Your task to perform on an android device: What's on my calendar tomorrow? Image 0: 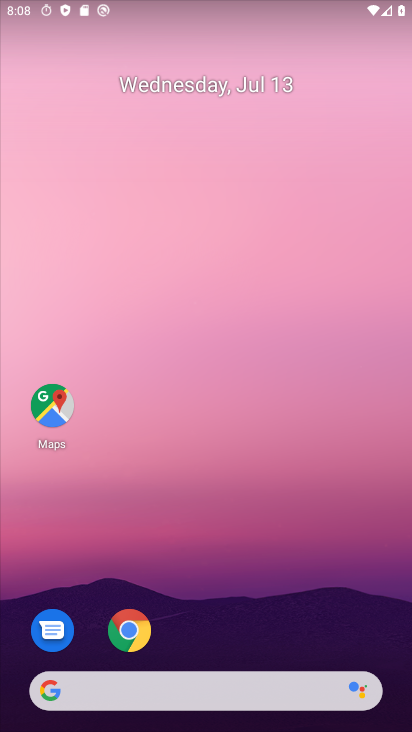
Step 0: drag from (211, 440) to (279, 133)
Your task to perform on an android device: What's on my calendar tomorrow? Image 1: 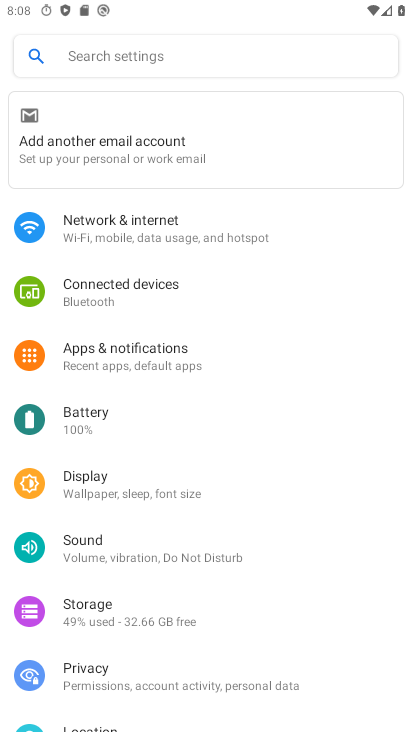
Step 1: drag from (167, 661) to (224, 140)
Your task to perform on an android device: What's on my calendar tomorrow? Image 2: 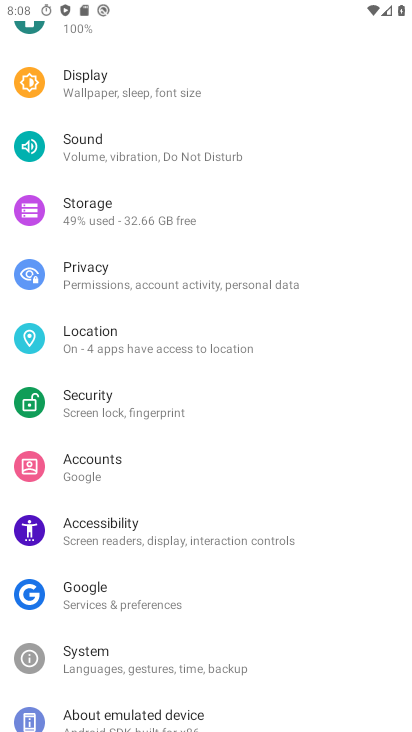
Step 2: drag from (172, 630) to (209, 227)
Your task to perform on an android device: What's on my calendar tomorrow? Image 3: 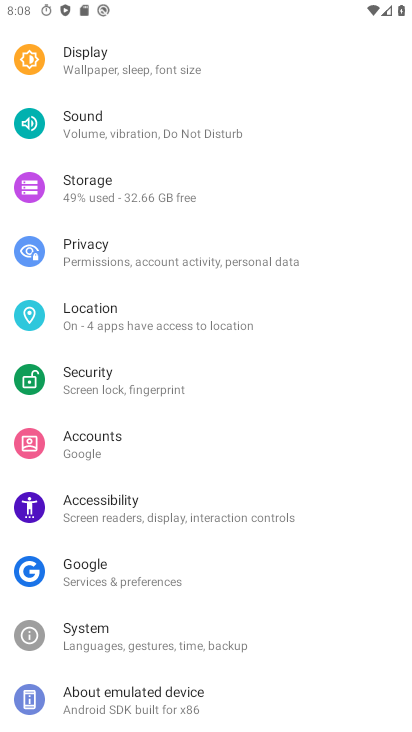
Step 3: press home button
Your task to perform on an android device: What's on my calendar tomorrow? Image 4: 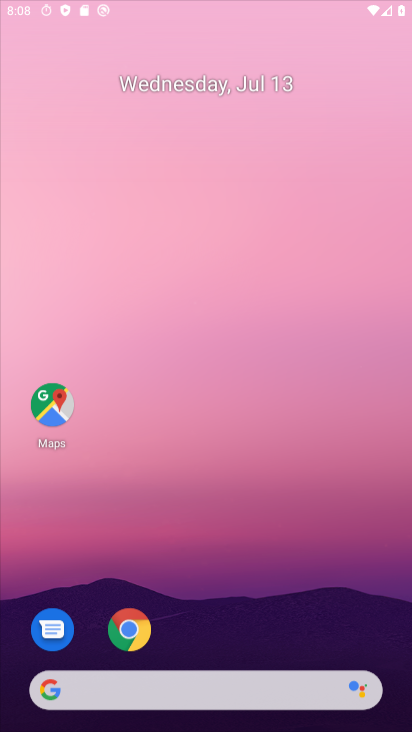
Step 4: drag from (193, 553) to (193, 149)
Your task to perform on an android device: What's on my calendar tomorrow? Image 5: 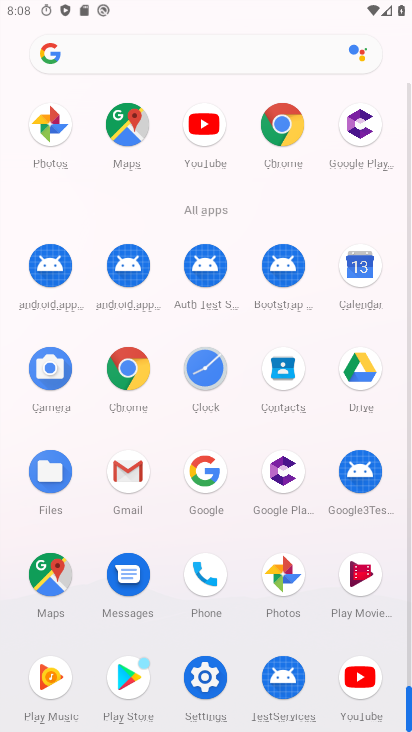
Step 5: drag from (189, 585) to (200, 197)
Your task to perform on an android device: What's on my calendar tomorrow? Image 6: 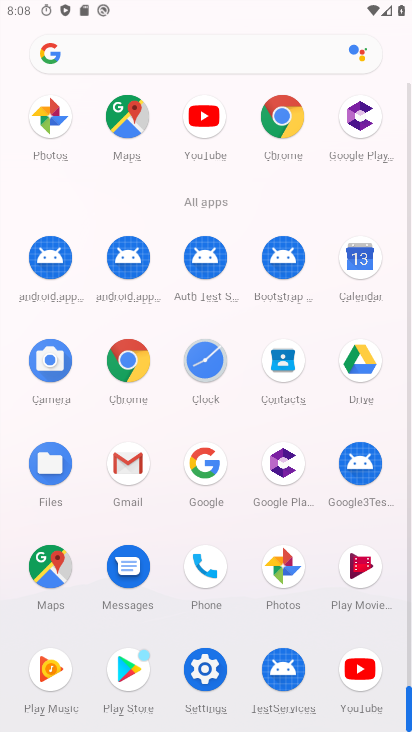
Step 6: drag from (151, 597) to (174, 241)
Your task to perform on an android device: What's on my calendar tomorrow? Image 7: 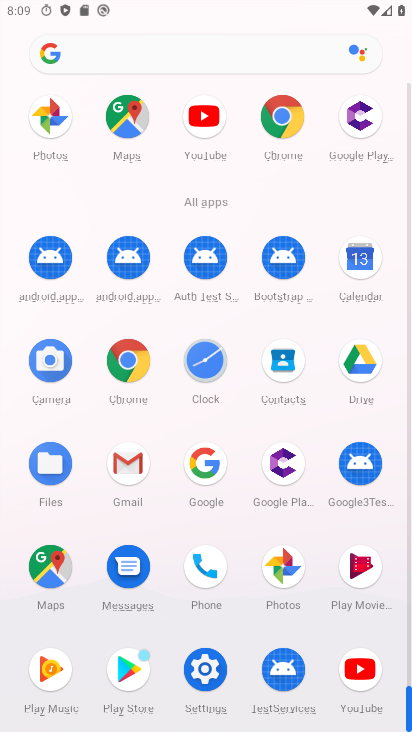
Step 7: click (358, 255)
Your task to perform on an android device: What's on my calendar tomorrow? Image 8: 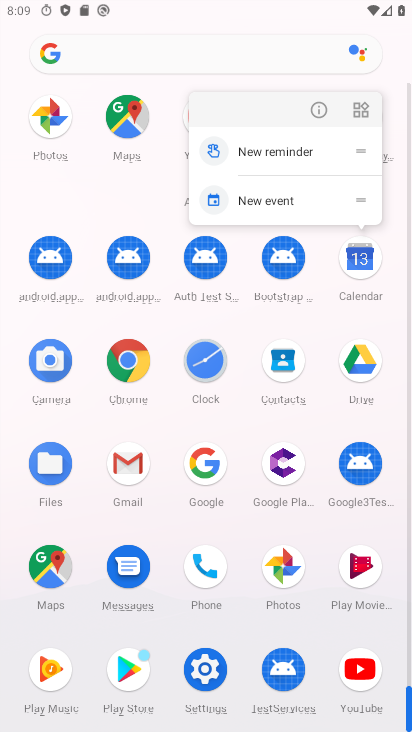
Step 8: click (313, 110)
Your task to perform on an android device: What's on my calendar tomorrow? Image 9: 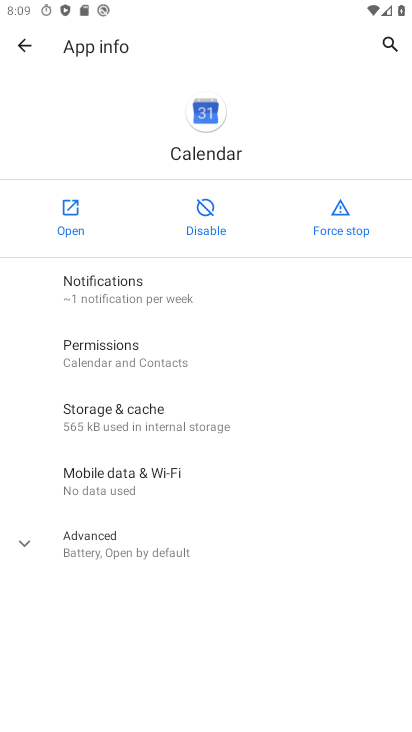
Step 9: click (66, 220)
Your task to perform on an android device: What's on my calendar tomorrow? Image 10: 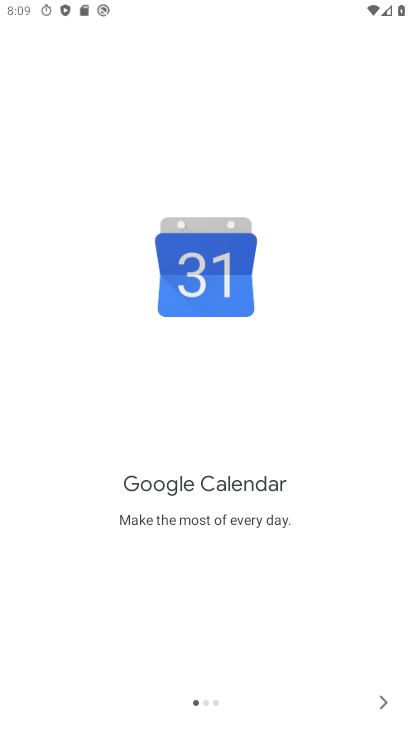
Step 10: click (263, 464)
Your task to perform on an android device: What's on my calendar tomorrow? Image 11: 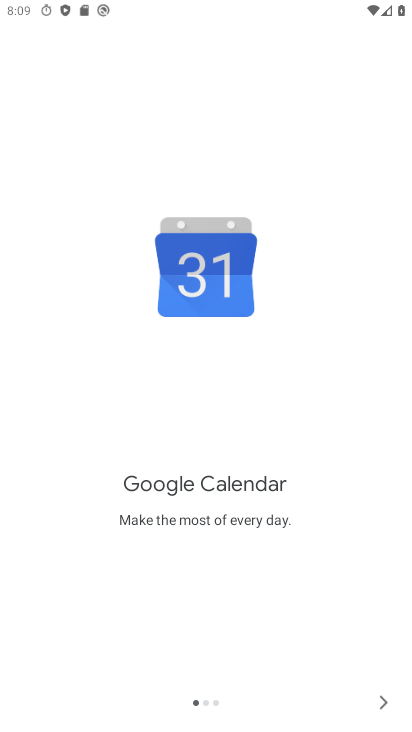
Step 11: click (382, 698)
Your task to perform on an android device: What's on my calendar tomorrow? Image 12: 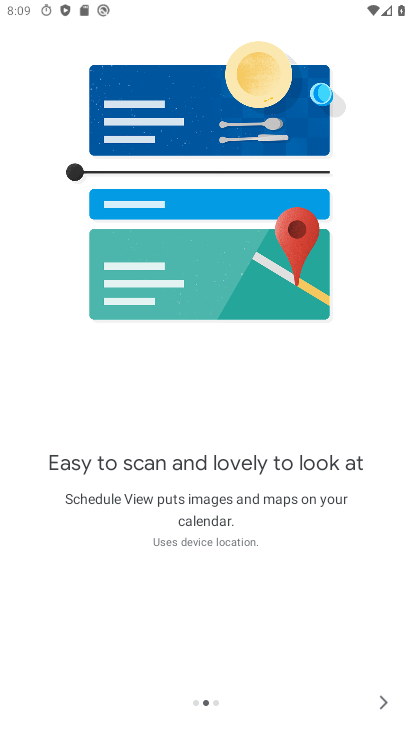
Step 12: click (389, 699)
Your task to perform on an android device: What's on my calendar tomorrow? Image 13: 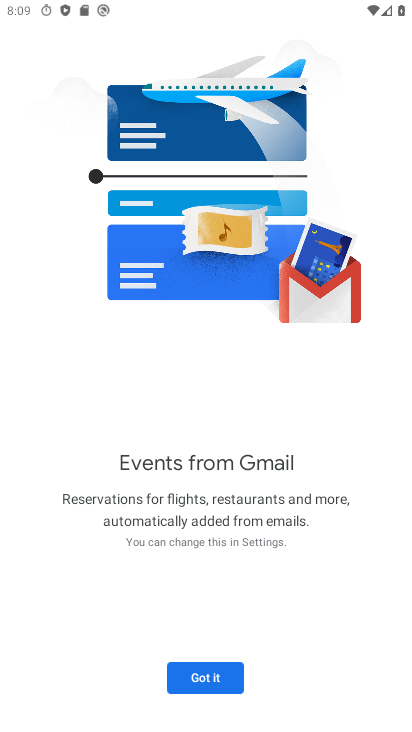
Step 13: drag from (271, 638) to (268, 529)
Your task to perform on an android device: What's on my calendar tomorrow? Image 14: 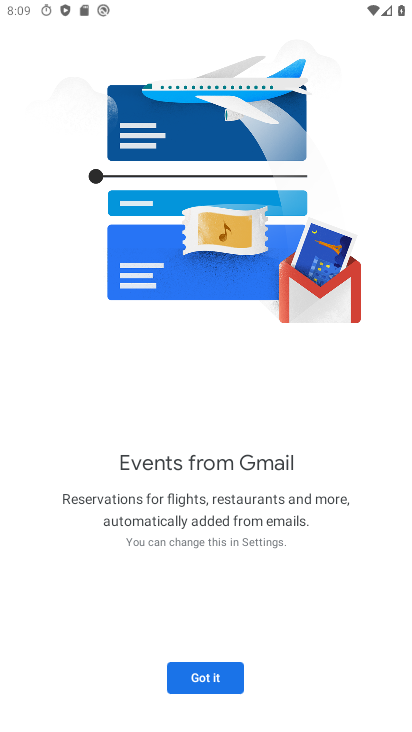
Step 14: click (213, 686)
Your task to perform on an android device: What's on my calendar tomorrow? Image 15: 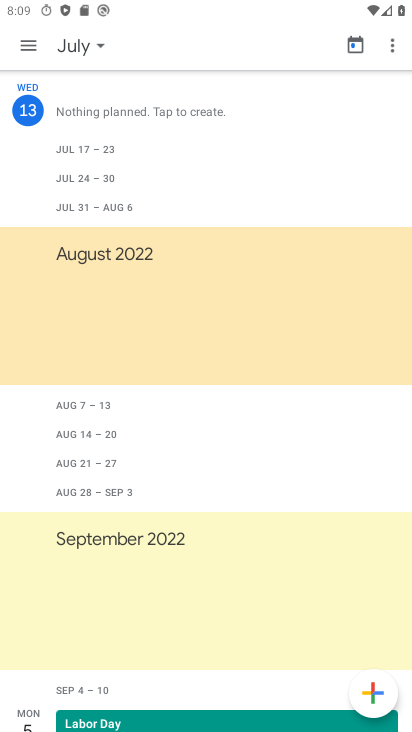
Step 15: drag from (264, 556) to (265, 276)
Your task to perform on an android device: What's on my calendar tomorrow? Image 16: 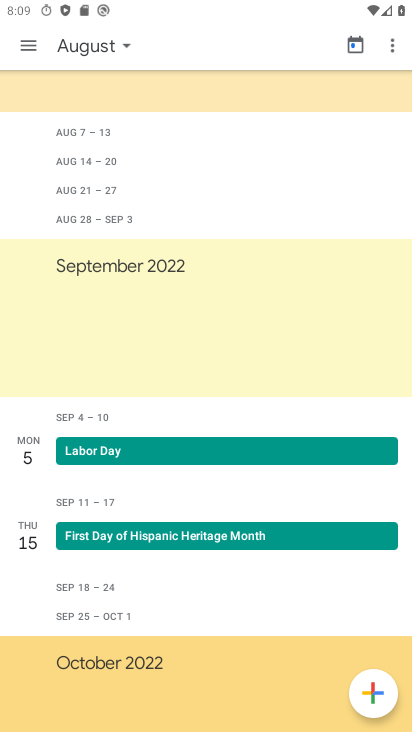
Step 16: click (97, 45)
Your task to perform on an android device: What's on my calendar tomorrow? Image 17: 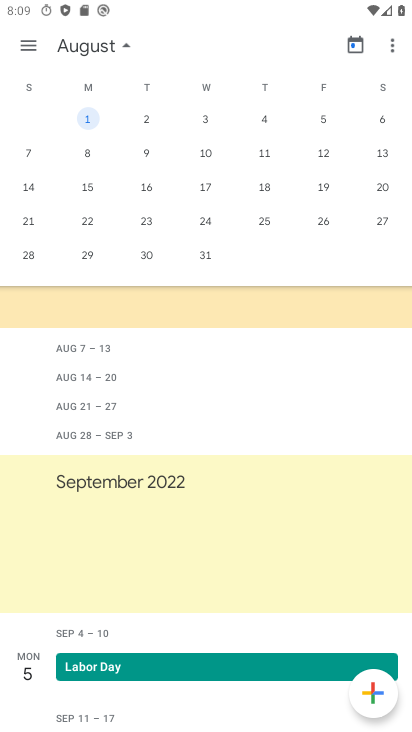
Step 17: click (357, 43)
Your task to perform on an android device: What's on my calendar tomorrow? Image 18: 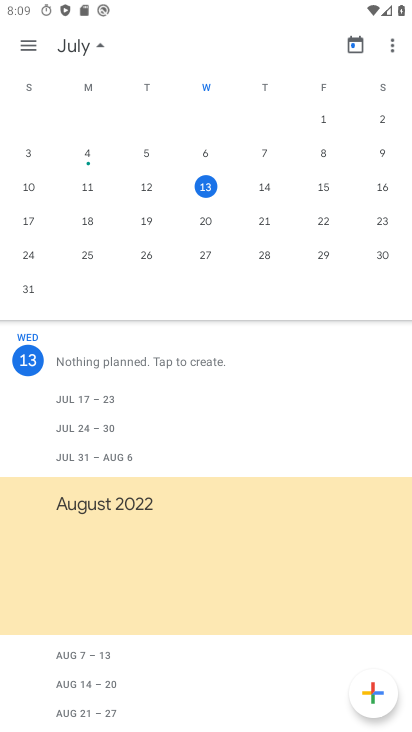
Step 18: click (262, 189)
Your task to perform on an android device: What's on my calendar tomorrow? Image 19: 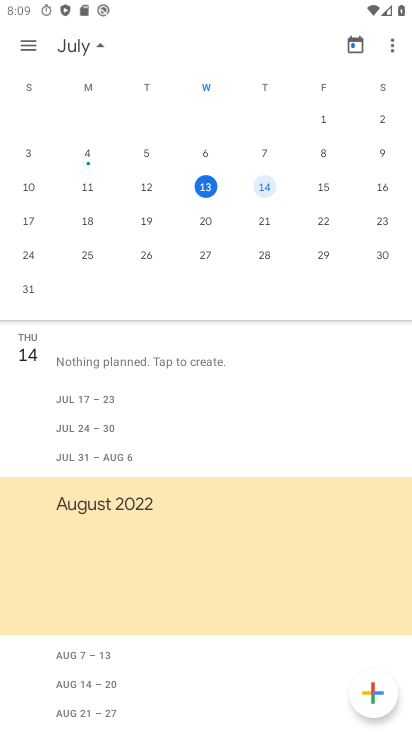
Step 19: click (263, 179)
Your task to perform on an android device: What's on my calendar tomorrow? Image 20: 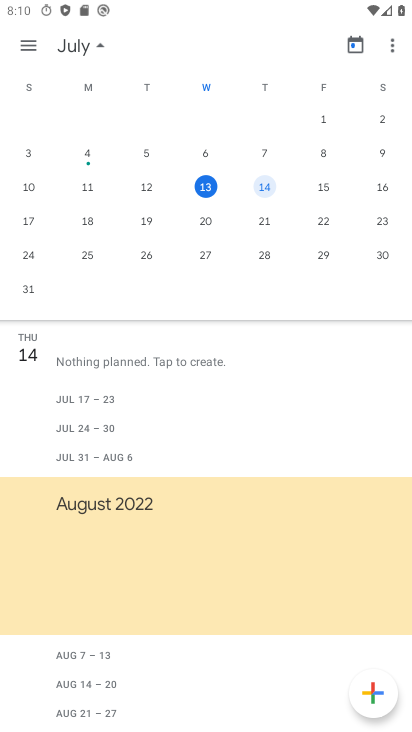
Step 20: click (265, 186)
Your task to perform on an android device: What's on my calendar tomorrow? Image 21: 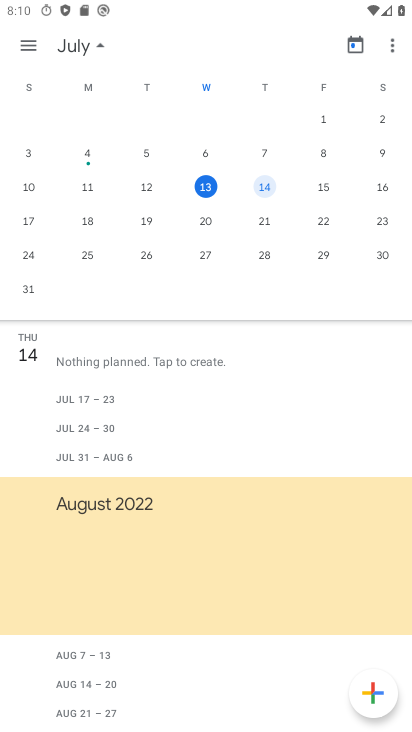
Step 21: task complete